Your task to perform on an android device: turn on wifi Image 0: 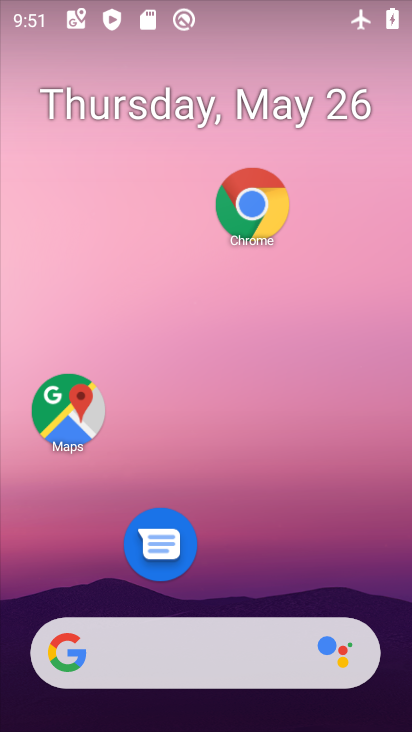
Step 0: press home button
Your task to perform on an android device: turn on wifi Image 1: 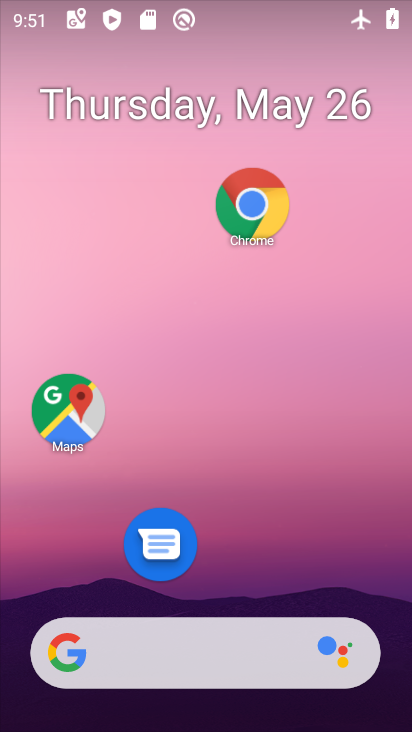
Step 1: drag from (245, 10) to (246, 516)
Your task to perform on an android device: turn on wifi Image 2: 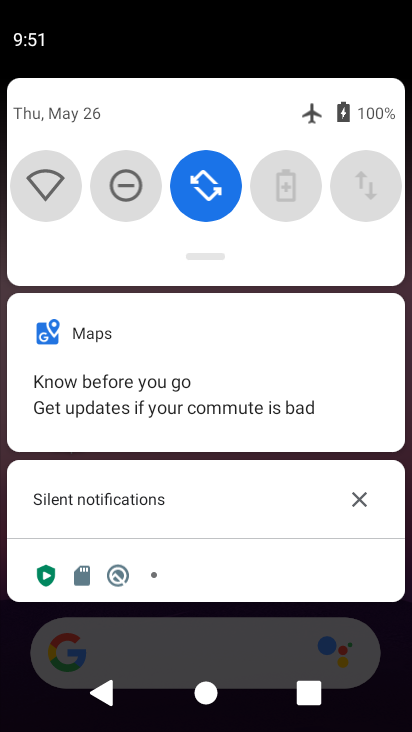
Step 2: click (45, 186)
Your task to perform on an android device: turn on wifi Image 3: 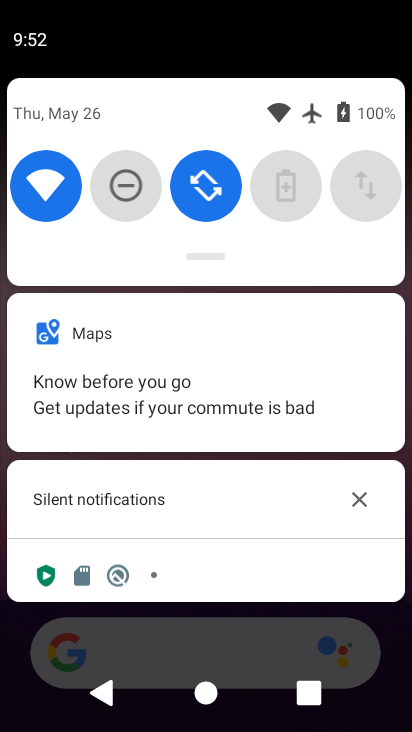
Step 3: task complete